Your task to perform on an android device: Open internet settings Image 0: 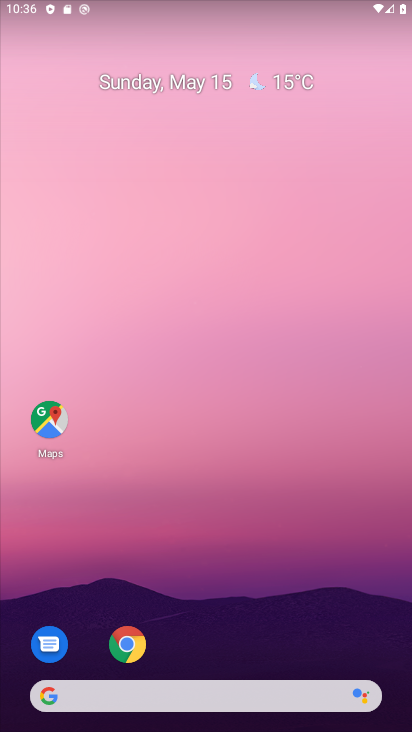
Step 0: click (266, 374)
Your task to perform on an android device: Open internet settings Image 1: 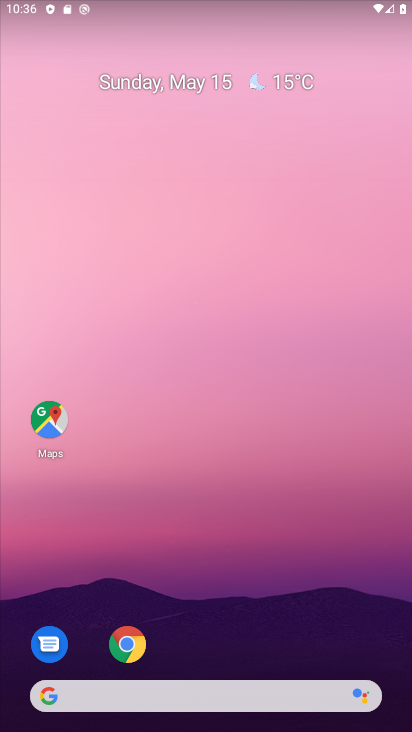
Step 1: drag from (257, 621) to (171, 71)
Your task to perform on an android device: Open internet settings Image 2: 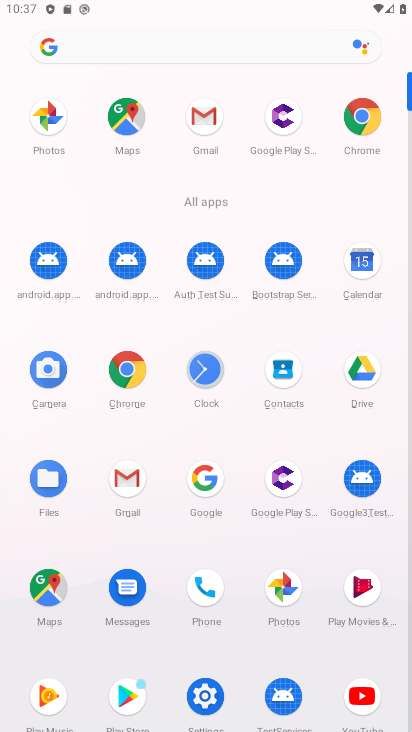
Step 2: click (196, 692)
Your task to perform on an android device: Open internet settings Image 3: 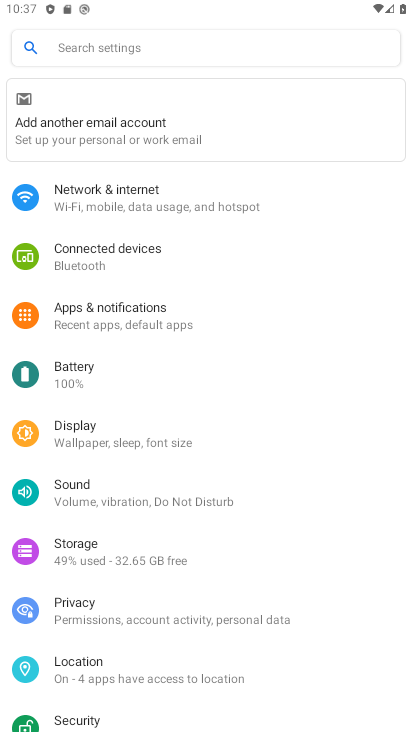
Step 3: click (202, 200)
Your task to perform on an android device: Open internet settings Image 4: 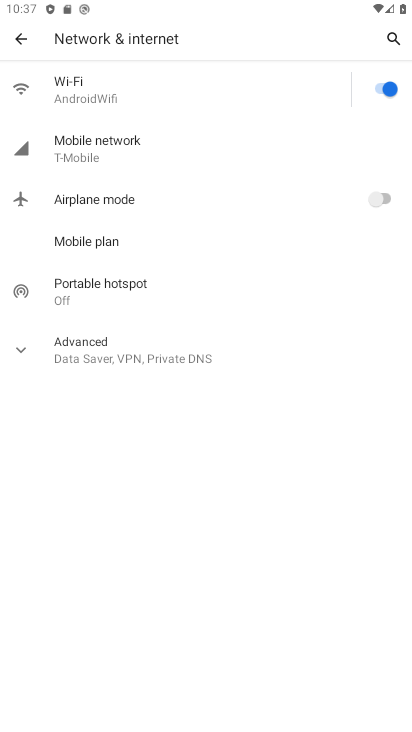
Step 4: task complete